Your task to perform on an android device: allow cookies in the chrome app Image 0: 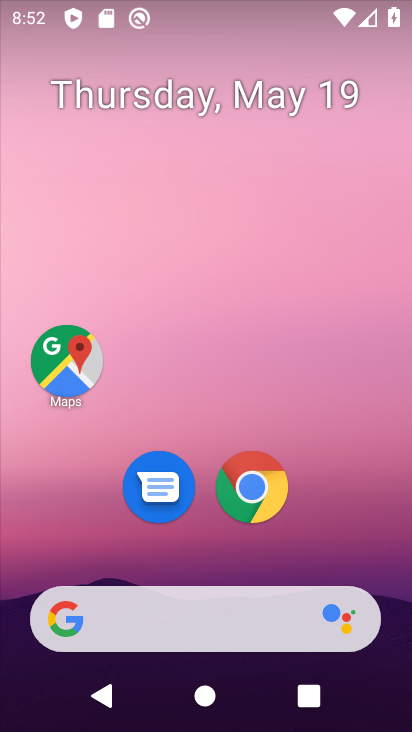
Step 0: click (255, 483)
Your task to perform on an android device: allow cookies in the chrome app Image 1: 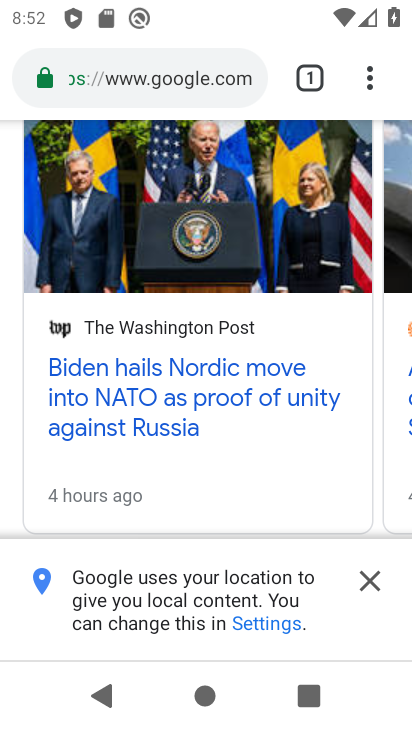
Step 1: click (369, 82)
Your task to perform on an android device: allow cookies in the chrome app Image 2: 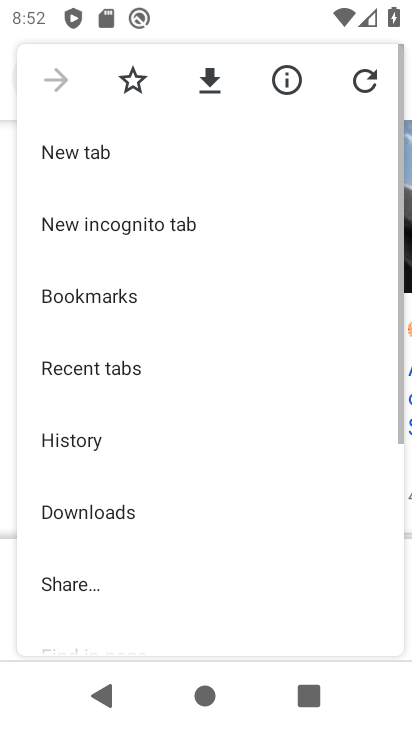
Step 2: drag from (107, 530) to (210, 96)
Your task to perform on an android device: allow cookies in the chrome app Image 3: 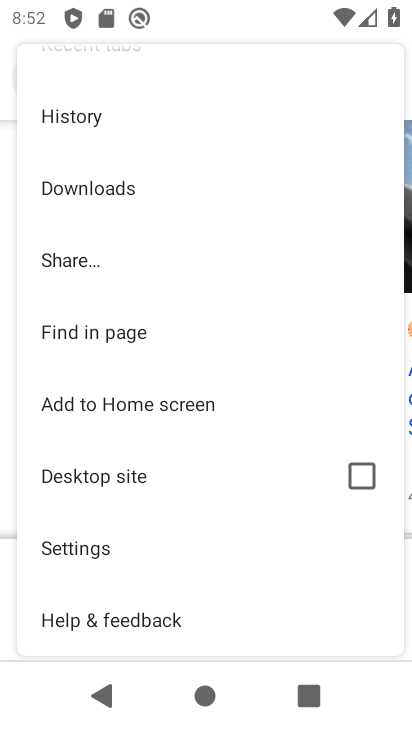
Step 3: click (68, 539)
Your task to perform on an android device: allow cookies in the chrome app Image 4: 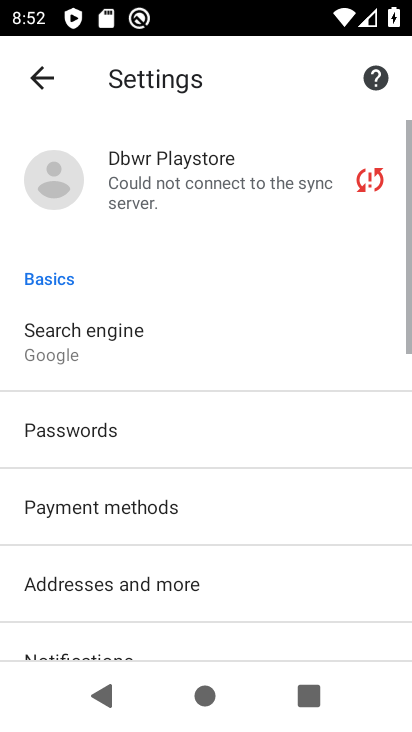
Step 4: drag from (116, 604) to (248, 151)
Your task to perform on an android device: allow cookies in the chrome app Image 5: 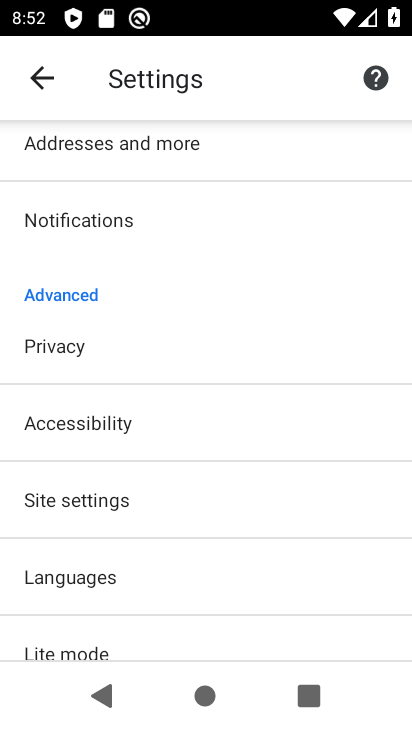
Step 5: drag from (172, 560) to (194, 354)
Your task to perform on an android device: allow cookies in the chrome app Image 6: 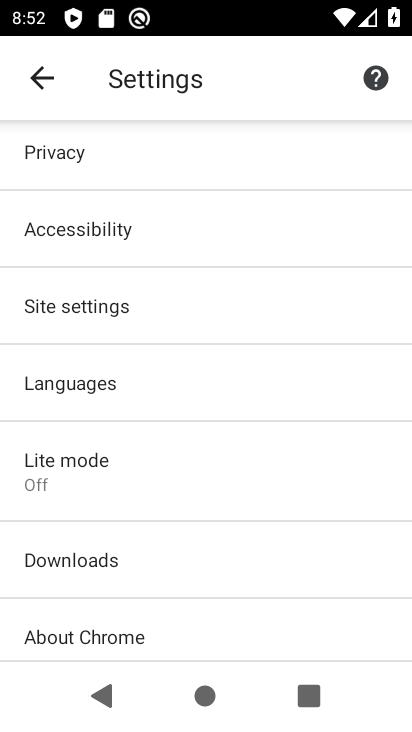
Step 6: click (88, 296)
Your task to perform on an android device: allow cookies in the chrome app Image 7: 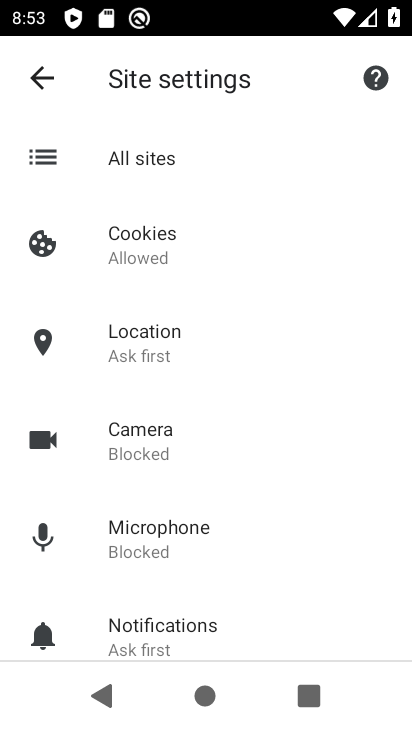
Step 7: click (132, 252)
Your task to perform on an android device: allow cookies in the chrome app Image 8: 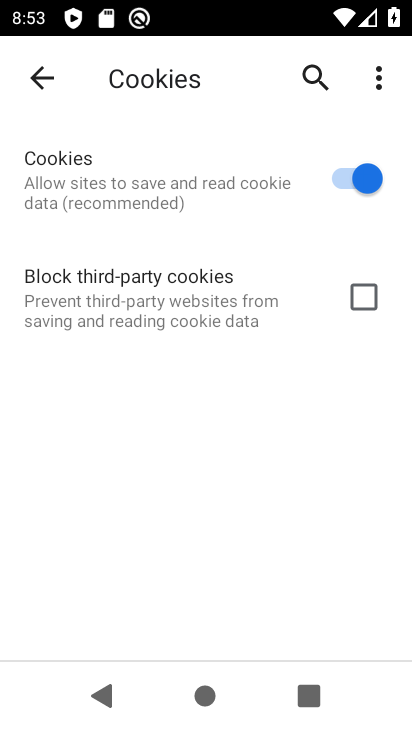
Step 8: task complete